Your task to perform on an android device: Go to network settings Image 0: 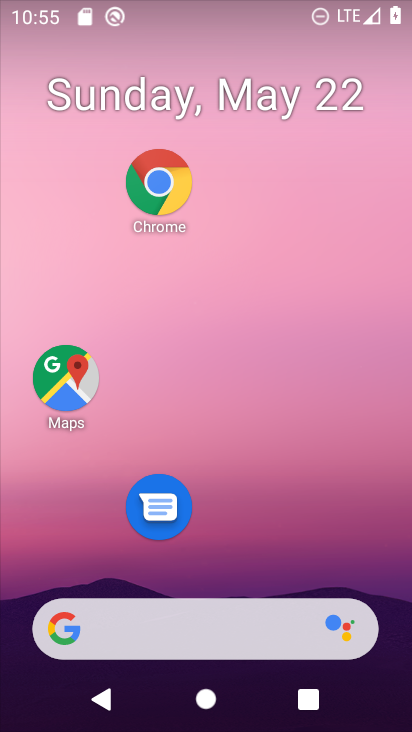
Step 0: drag from (255, 674) to (219, 41)
Your task to perform on an android device: Go to network settings Image 1: 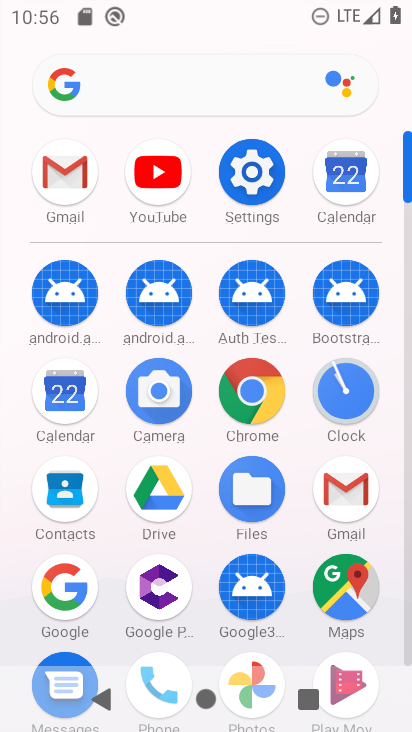
Step 1: click (234, 158)
Your task to perform on an android device: Go to network settings Image 2: 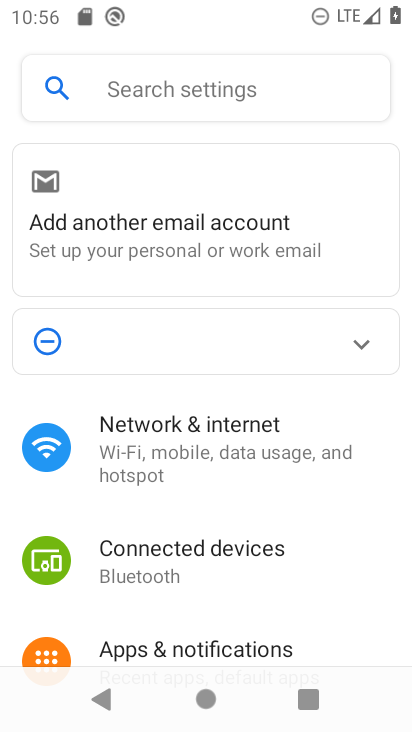
Step 2: click (235, 421)
Your task to perform on an android device: Go to network settings Image 3: 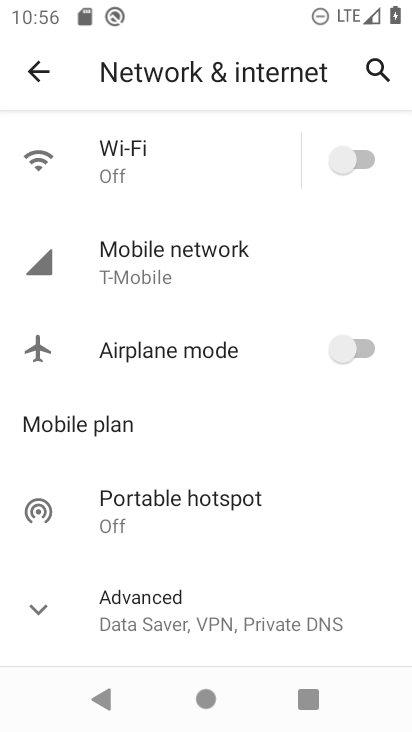
Step 3: task complete